Your task to perform on an android device: turn off wifi Image 0: 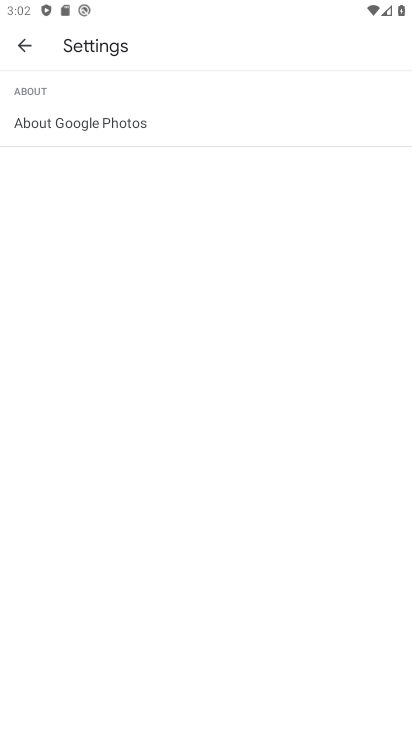
Step 0: press home button
Your task to perform on an android device: turn off wifi Image 1: 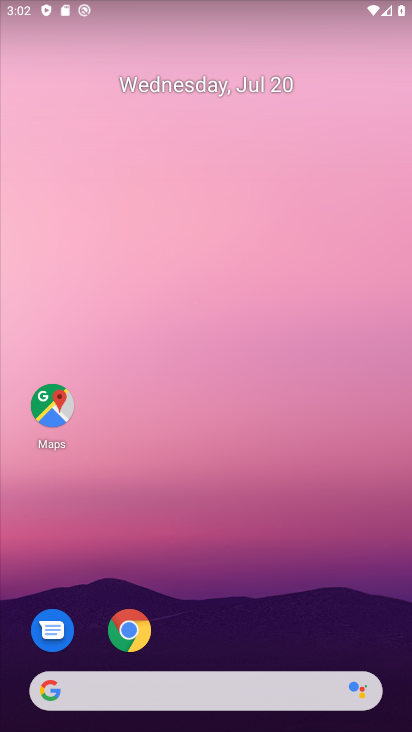
Step 1: drag from (174, 1) to (136, 601)
Your task to perform on an android device: turn off wifi Image 2: 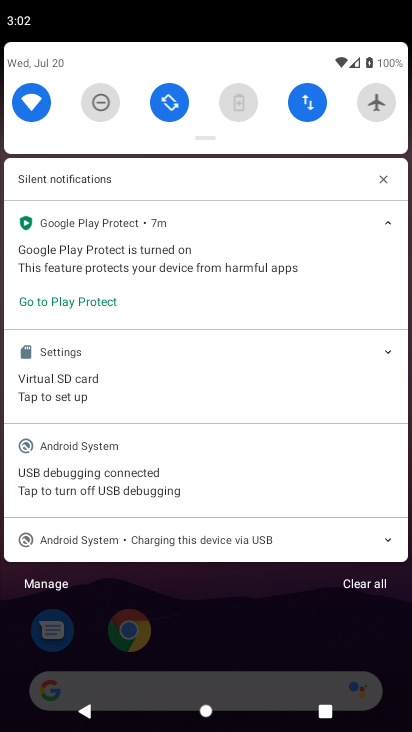
Step 2: click (26, 101)
Your task to perform on an android device: turn off wifi Image 3: 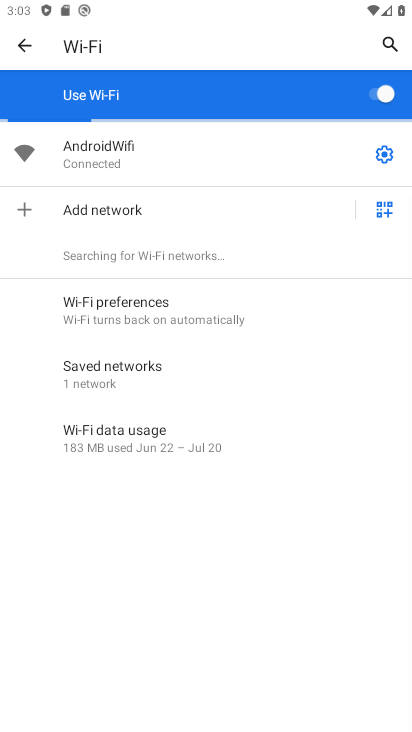
Step 3: click (383, 86)
Your task to perform on an android device: turn off wifi Image 4: 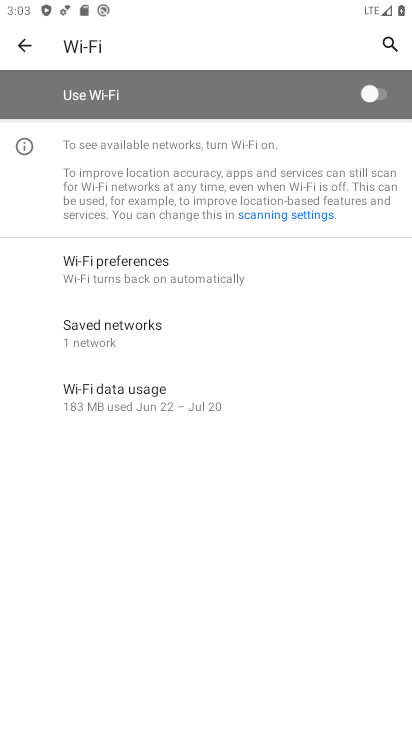
Step 4: task complete